Your task to perform on an android device: Open the Play Movies app and select the watchlist tab. Image 0: 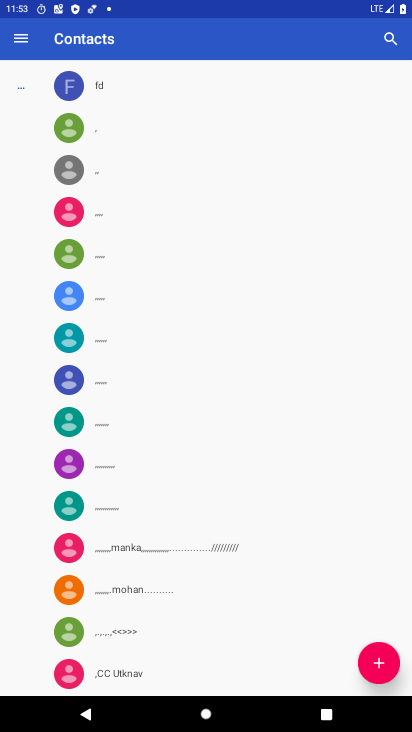
Step 0: press home button
Your task to perform on an android device: Open the Play Movies app and select the watchlist tab. Image 1: 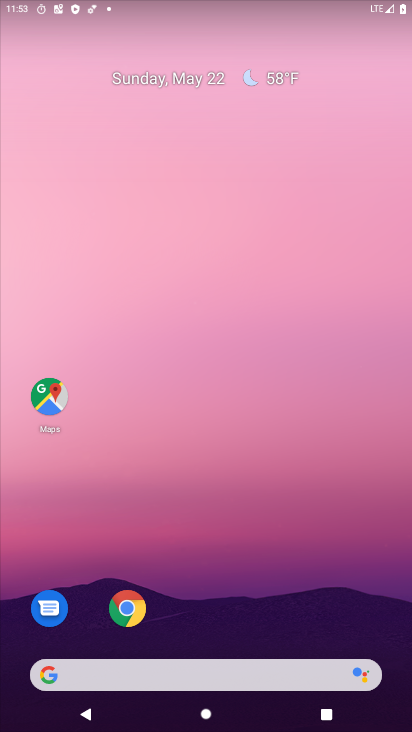
Step 1: drag from (349, 635) to (250, 40)
Your task to perform on an android device: Open the Play Movies app and select the watchlist tab. Image 2: 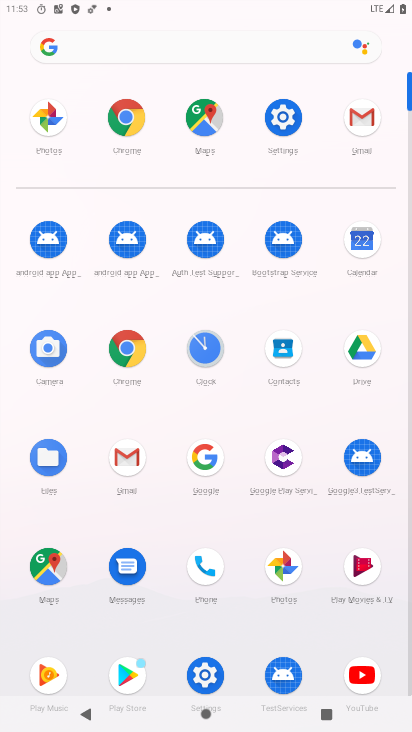
Step 2: click (368, 572)
Your task to perform on an android device: Open the Play Movies app and select the watchlist tab. Image 3: 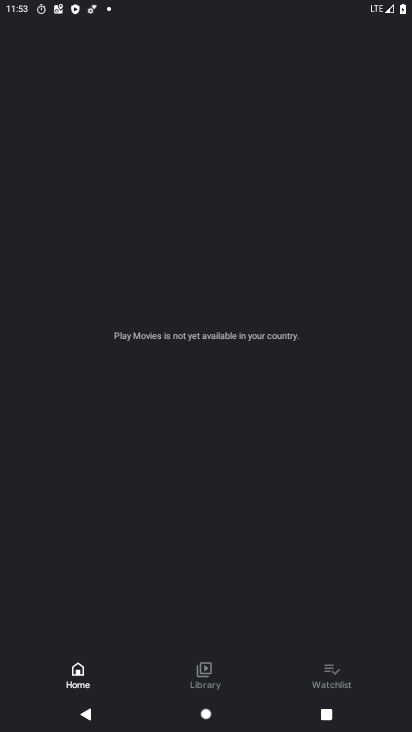
Step 3: click (345, 691)
Your task to perform on an android device: Open the Play Movies app and select the watchlist tab. Image 4: 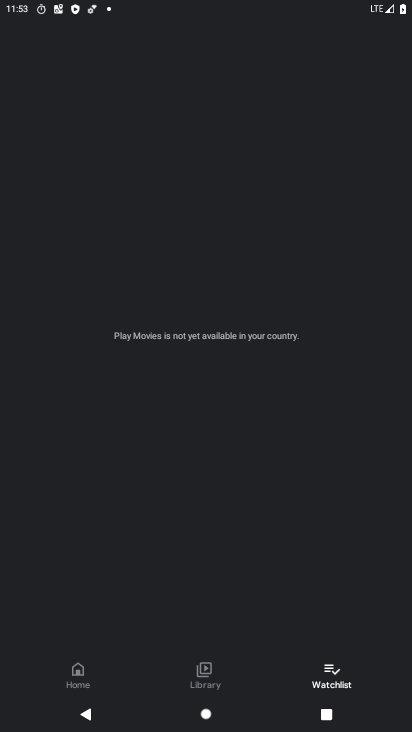
Step 4: task complete